Your task to perform on an android device: turn off notifications in google photos Image 0: 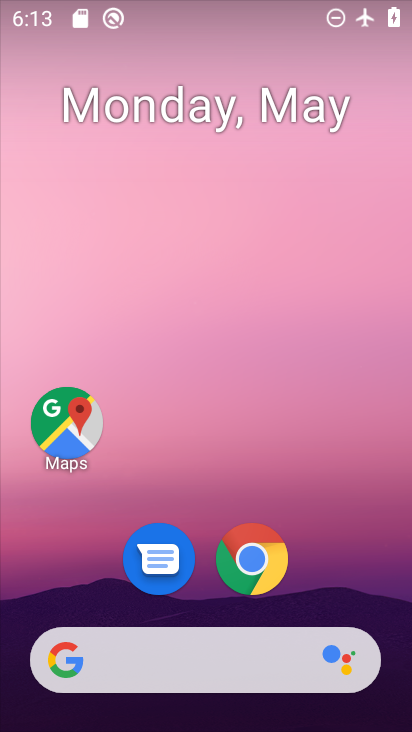
Step 0: drag from (335, 586) to (267, 149)
Your task to perform on an android device: turn off notifications in google photos Image 1: 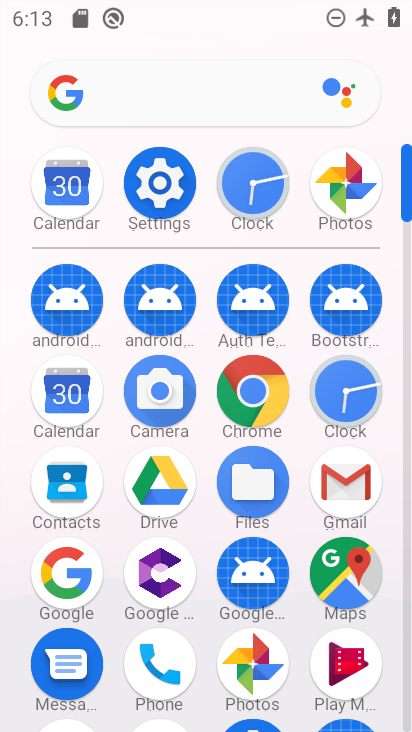
Step 1: click (347, 184)
Your task to perform on an android device: turn off notifications in google photos Image 2: 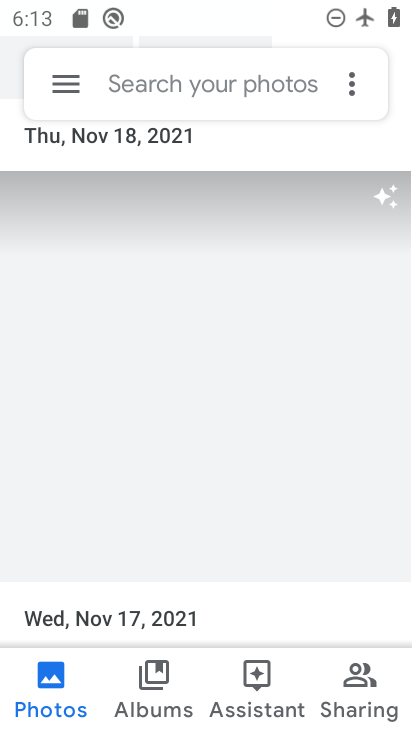
Step 2: click (71, 77)
Your task to perform on an android device: turn off notifications in google photos Image 3: 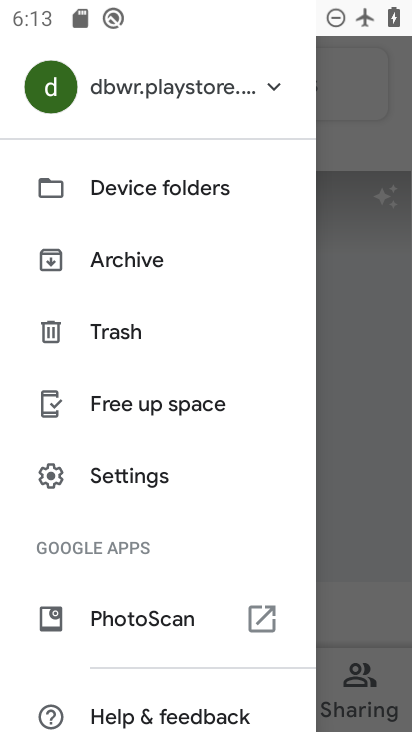
Step 3: click (127, 473)
Your task to perform on an android device: turn off notifications in google photos Image 4: 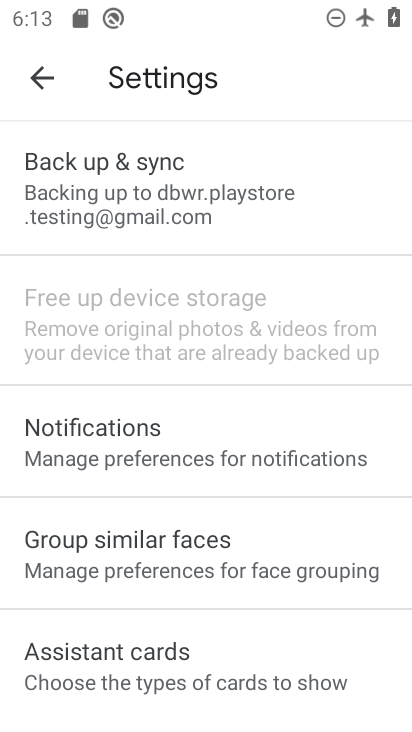
Step 4: click (126, 432)
Your task to perform on an android device: turn off notifications in google photos Image 5: 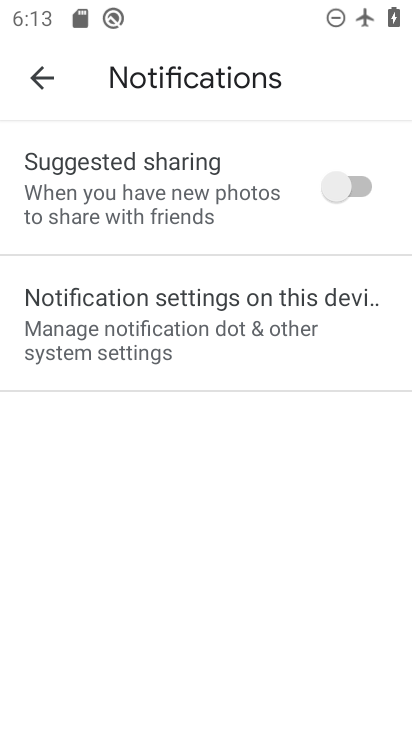
Step 5: click (167, 303)
Your task to perform on an android device: turn off notifications in google photos Image 6: 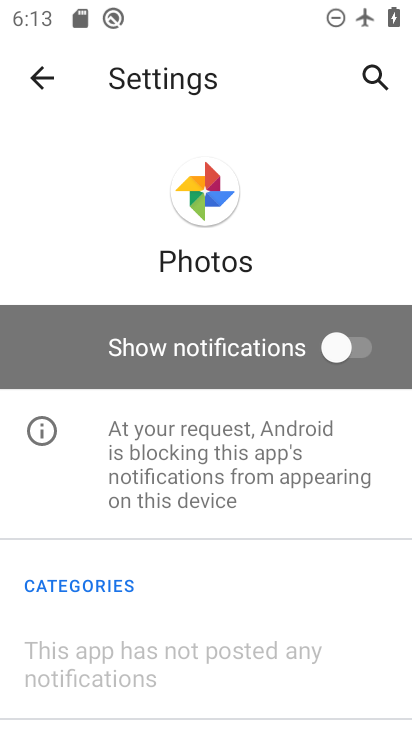
Step 6: task complete